Your task to perform on an android device: Search for "macbook pro 13 inch" on ebay, select the first entry, and add it to the cart. Image 0: 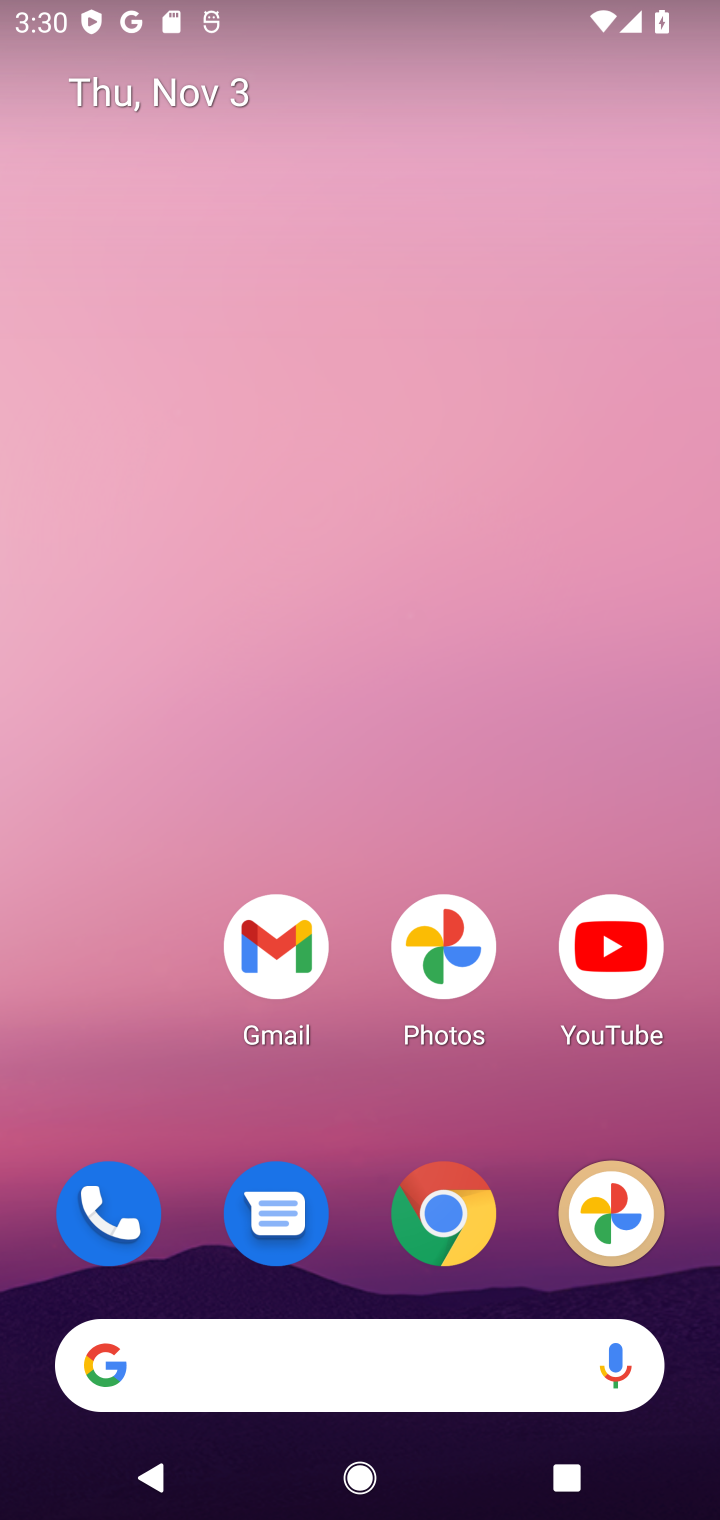
Step 0: click (448, 1230)
Your task to perform on an android device: Search for "macbook pro 13 inch" on ebay, select the first entry, and add it to the cart. Image 1: 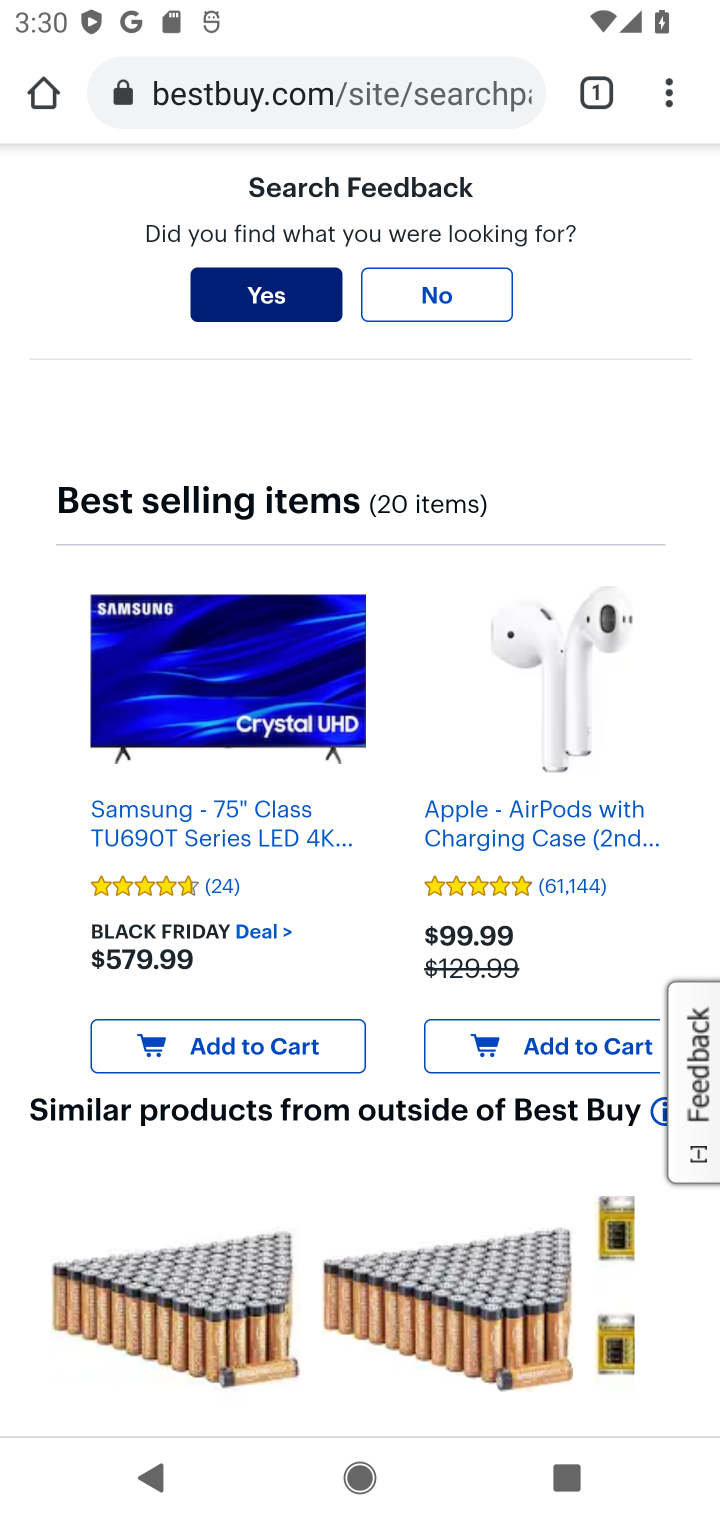
Step 1: click (328, 98)
Your task to perform on an android device: Search for "macbook pro 13 inch" on ebay, select the first entry, and add it to the cart. Image 2: 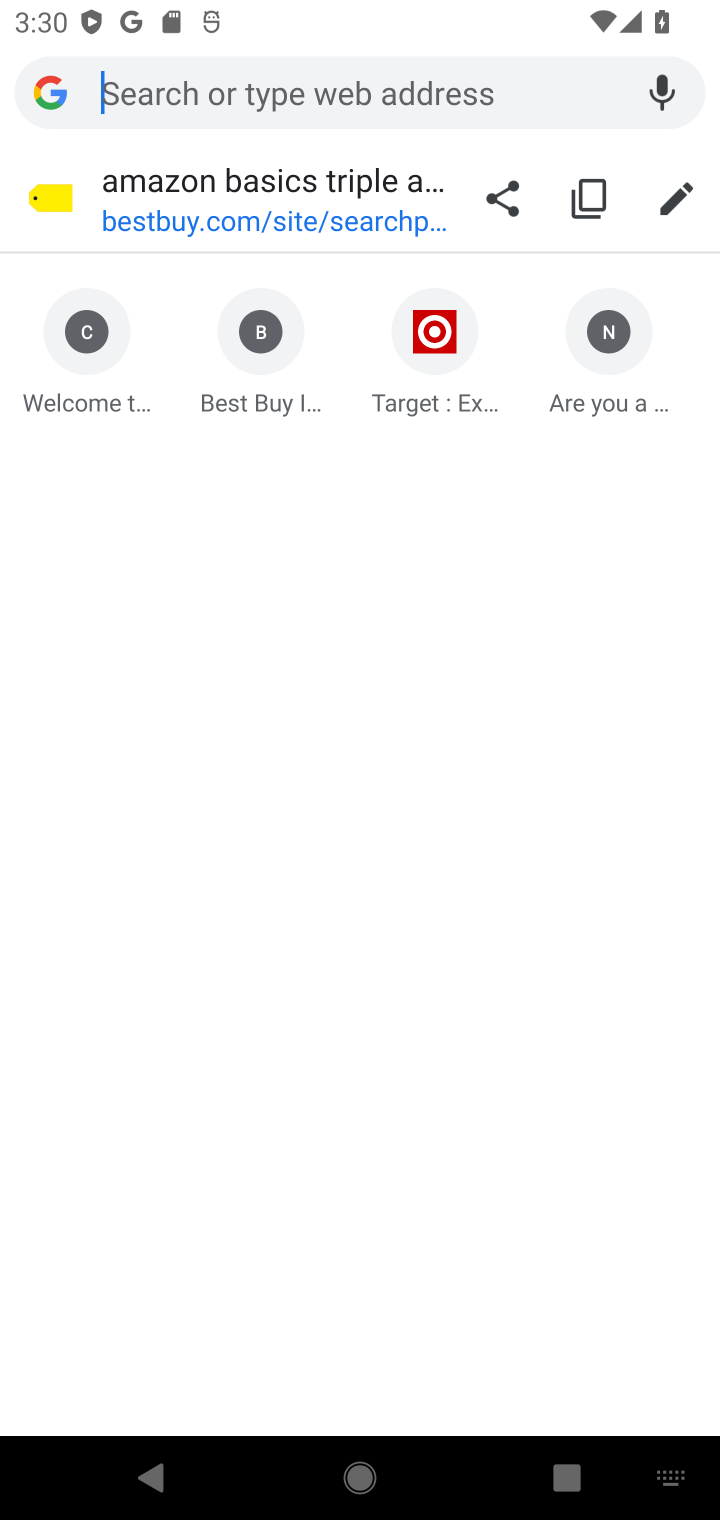
Step 2: type "ebay.com"
Your task to perform on an android device: Search for "macbook pro 13 inch" on ebay, select the first entry, and add it to the cart. Image 3: 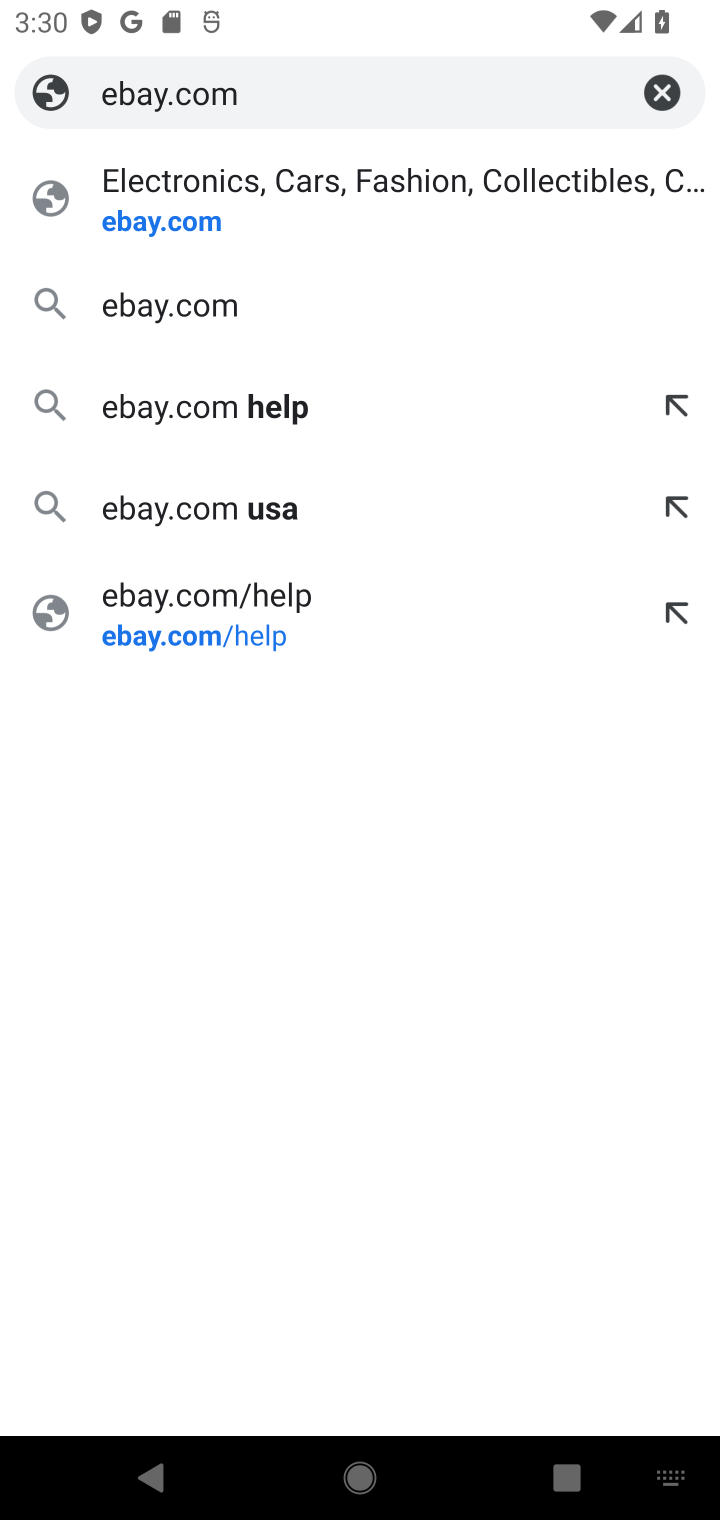
Step 3: click (165, 231)
Your task to perform on an android device: Search for "macbook pro 13 inch" on ebay, select the first entry, and add it to the cart. Image 4: 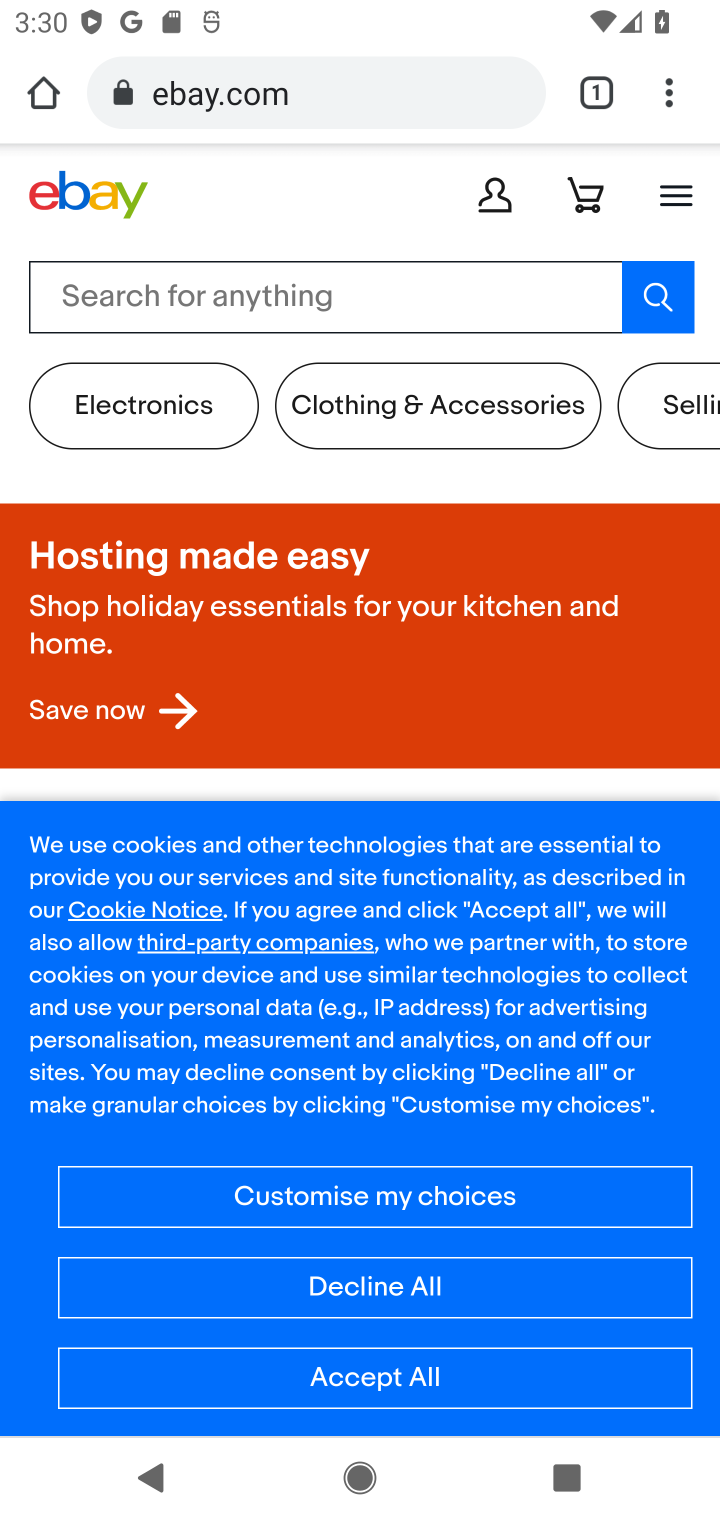
Step 4: click (178, 286)
Your task to perform on an android device: Search for "macbook pro 13 inch" on ebay, select the first entry, and add it to the cart. Image 5: 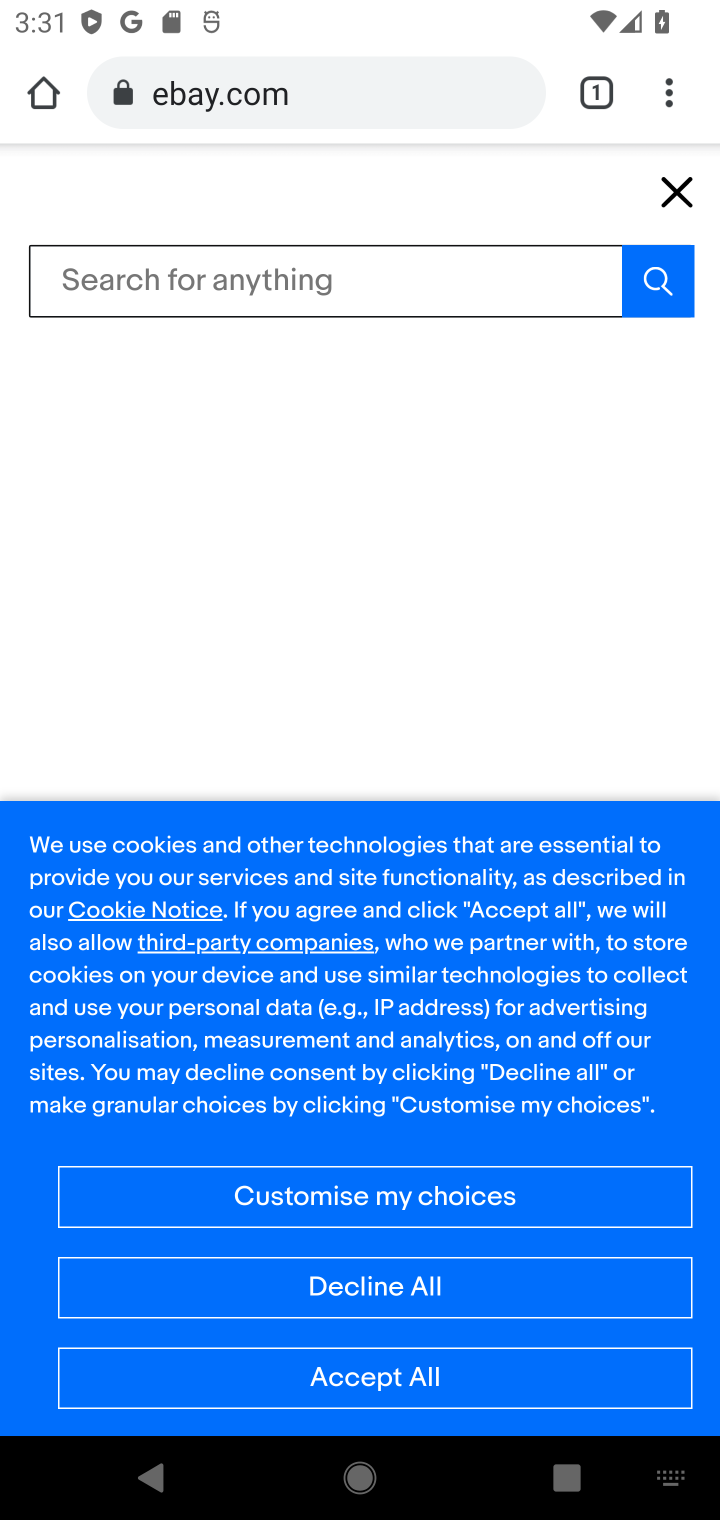
Step 5: type "macbook pro 13 inch"
Your task to perform on an android device: Search for "macbook pro 13 inch" on ebay, select the first entry, and add it to the cart. Image 6: 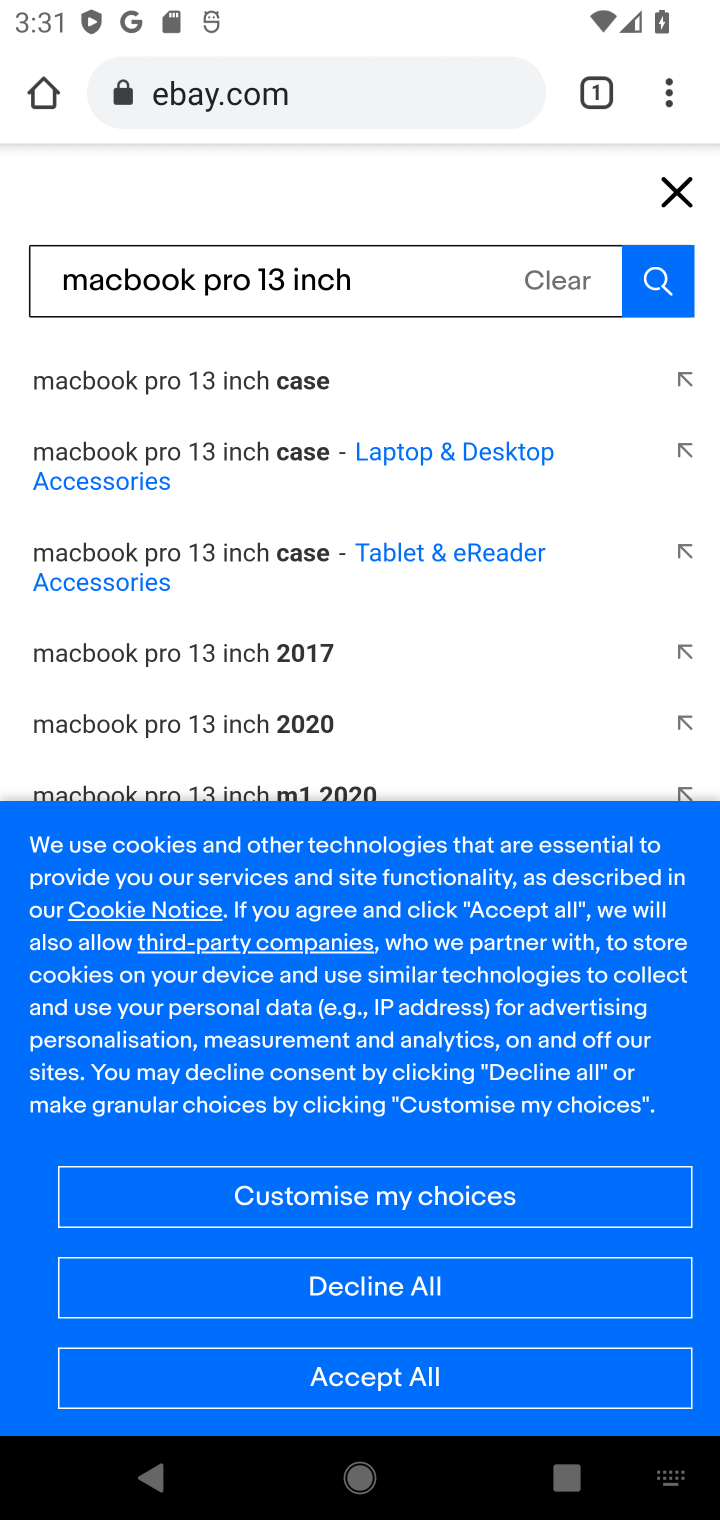
Step 6: click (658, 298)
Your task to perform on an android device: Search for "macbook pro 13 inch" on ebay, select the first entry, and add it to the cart. Image 7: 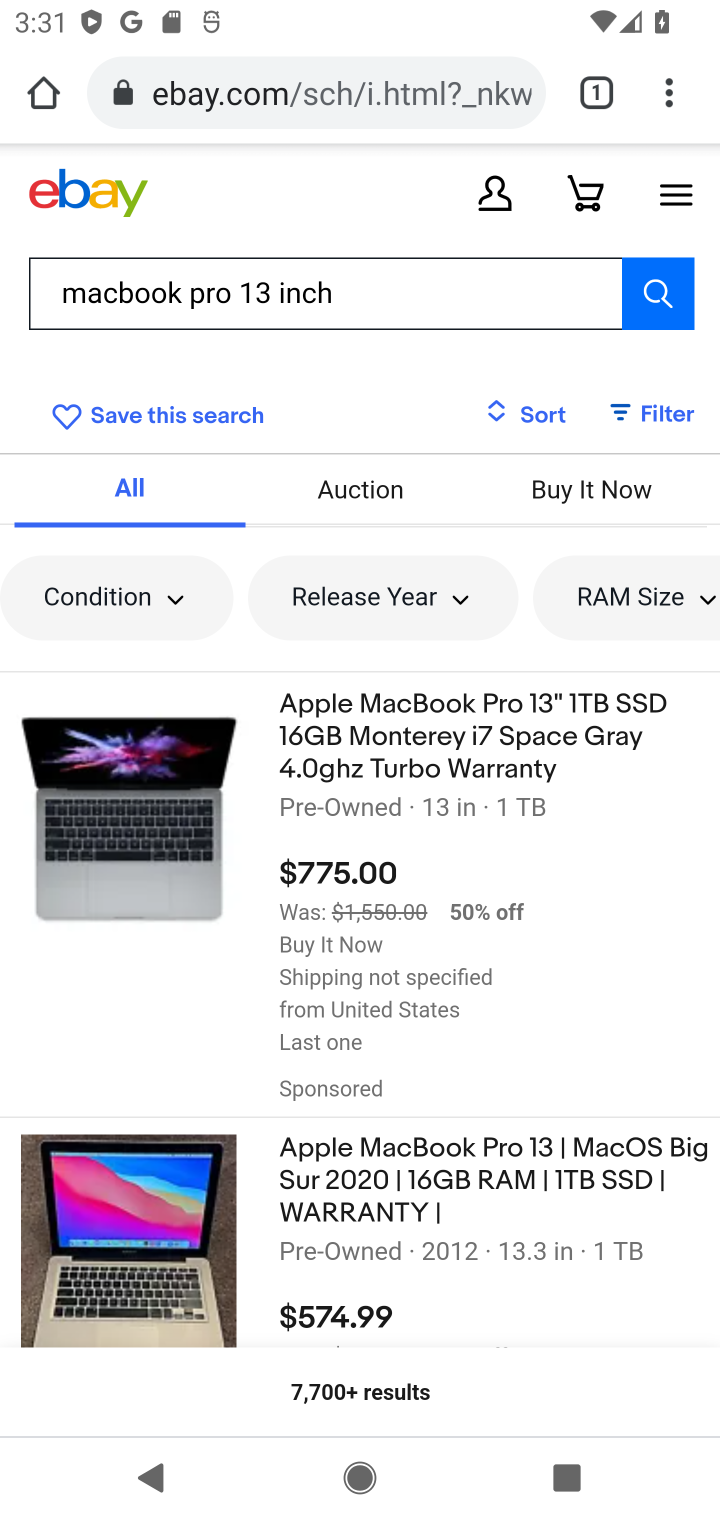
Step 7: click (241, 823)
Your task to perform on an android device: Search for "macbook pro 13 inch" on ebay, select the first entry, and add it to the cart. Image 8: 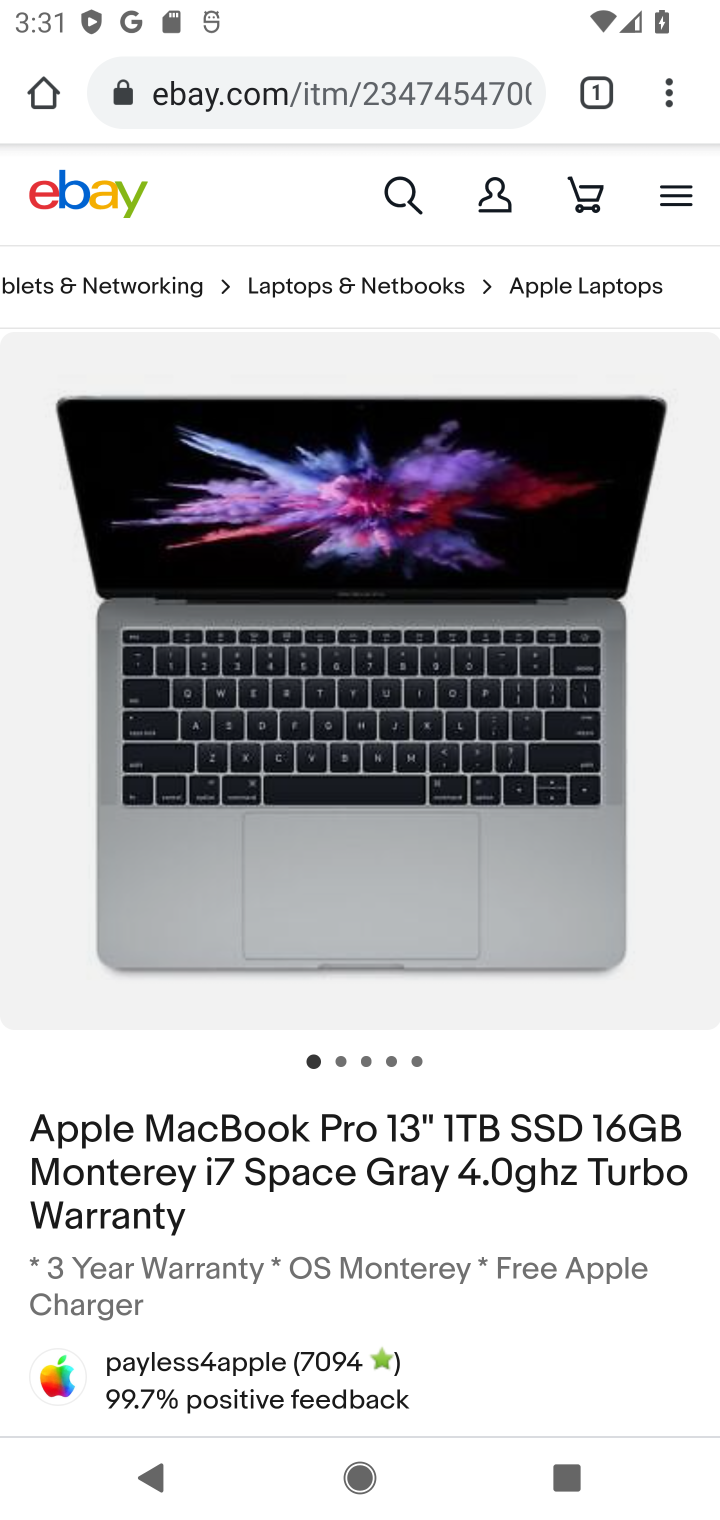
Step 8: drag from (305, 992) to (325, 466)
Your task to perform on an android device: Search for "macbook pro 13 inch" on ebay, select the first entry, and add it to the cart. Image 9: 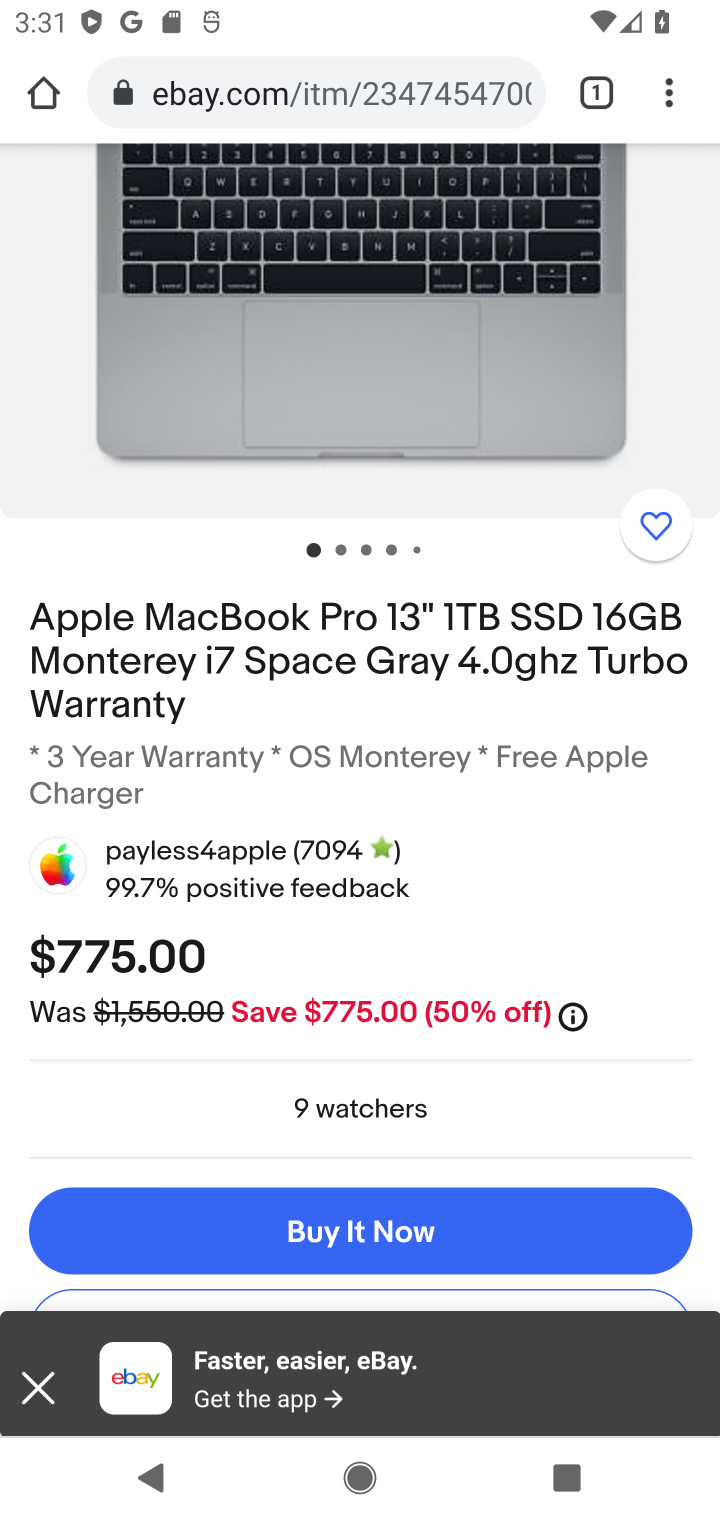
Step 9: drag from (354, 1010) to (381, 473)
Your task to perform on an android device: Search for "macbook pro 13 inch" on ebay, select the first entry, and add it to the cart. Image 10: 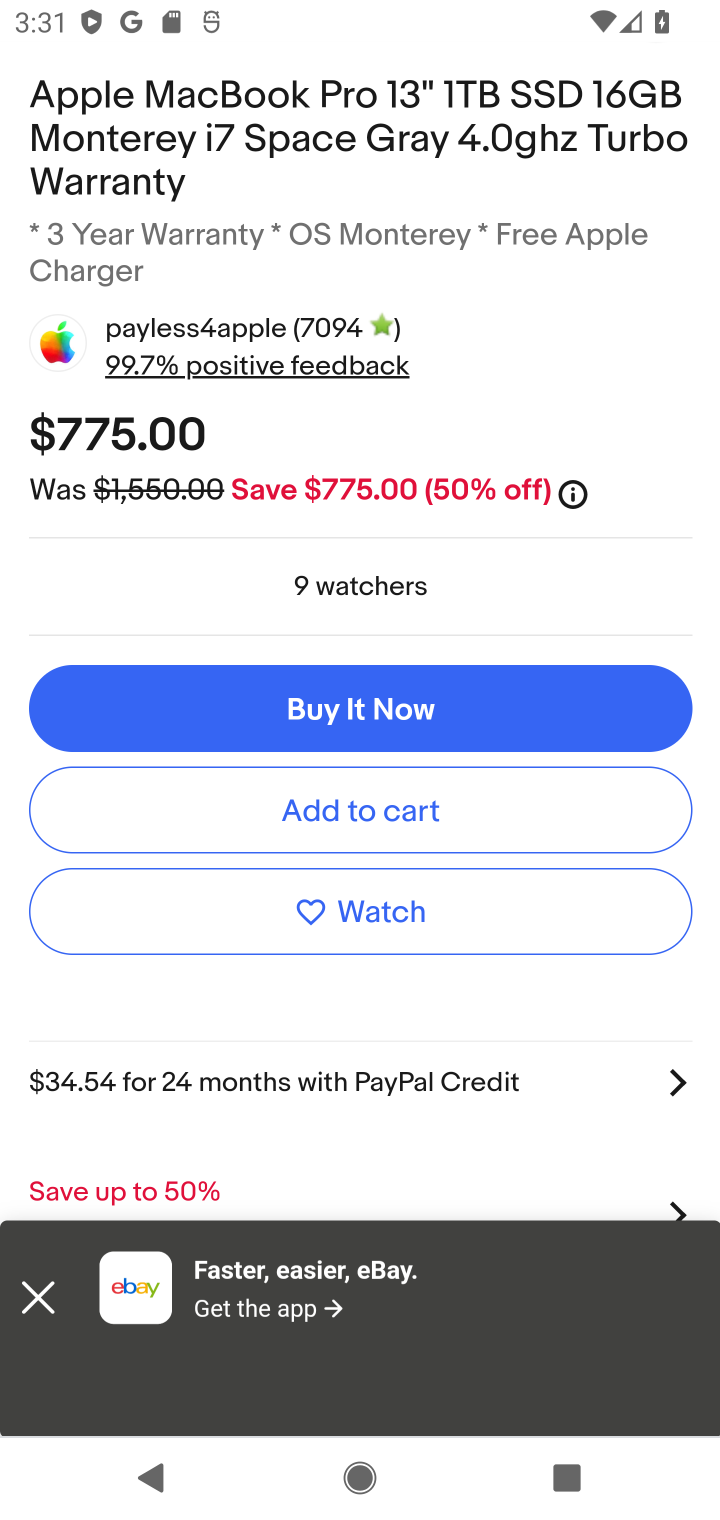
Step 10: click (335, 799)
Your task to perform on an android device: Search for "macbook pro 13 inch" on ebay, select the first entry, and add it to the cart. Image 11: 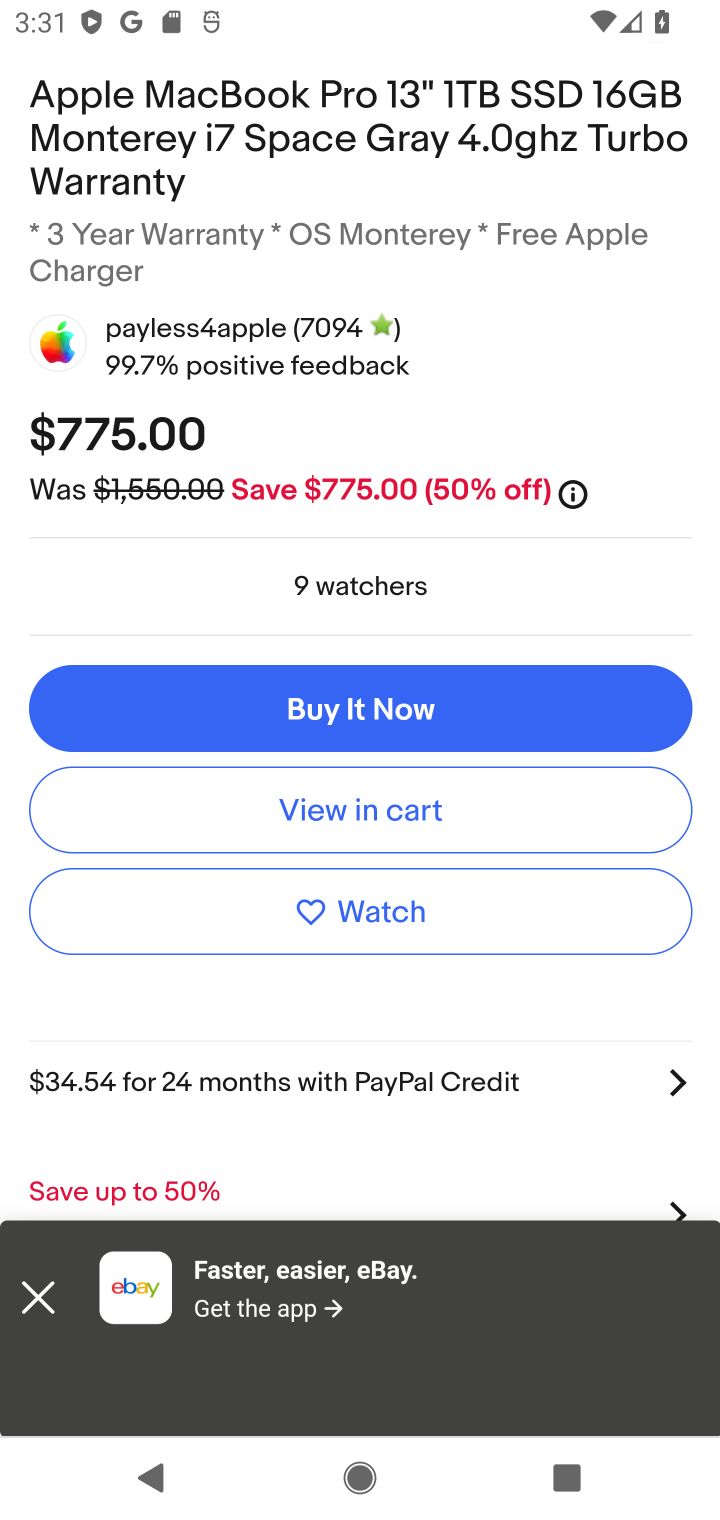
Step 11: task complete